Your task to perform on an android device: Open calendar and show me the second week of next month Image 0: 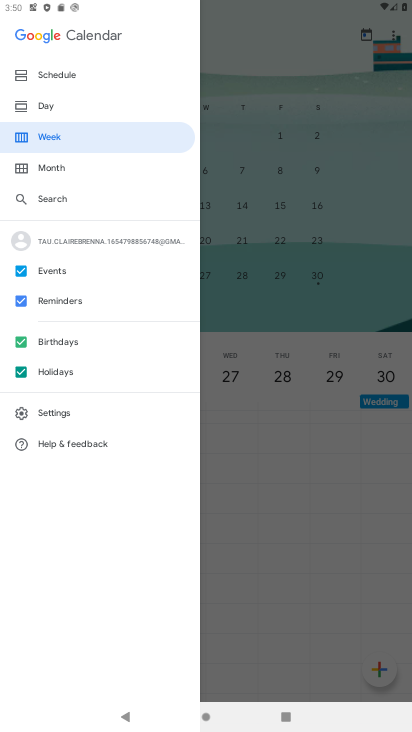
Step 0: press home button
Your task to perform on an android device: Open calendar and show me the second week of next month Image 1: 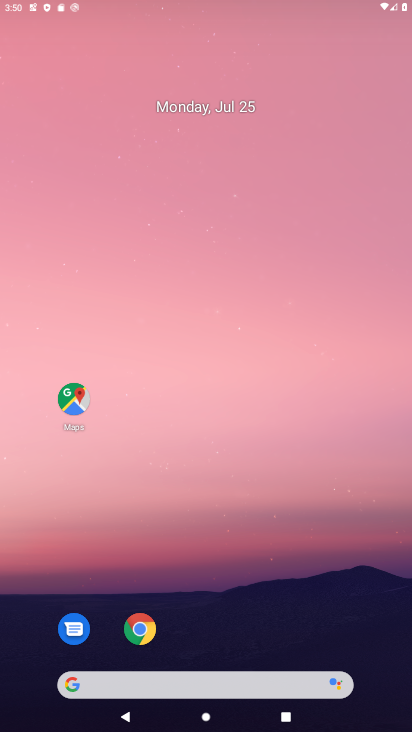
Step 1: drag from (212, 681) to (241, 2)
Your task to perform on an android device: Open calendar and show me the second week of next month Image 2: 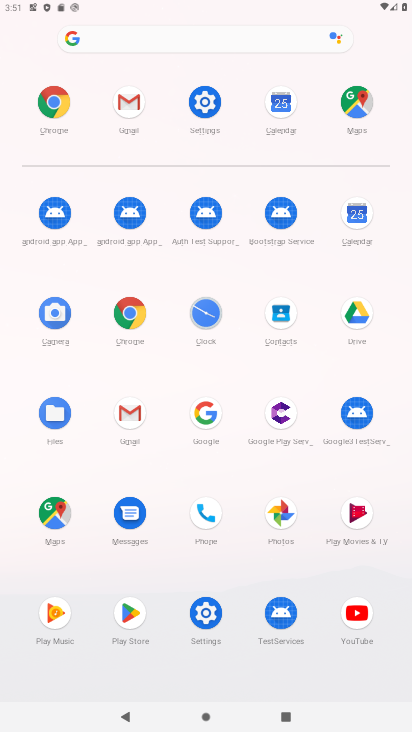
Step 2: click (358, 211)
Your task to perform on an android device: Open calendar and show me the second week of next month Image 3: 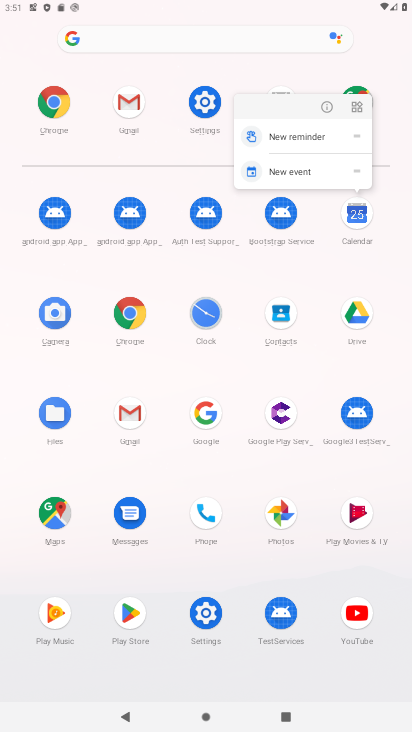
Step 3: click (359, 219)
Your task to perform on an android device: Open calendar and show me the second week of next month Image 4: 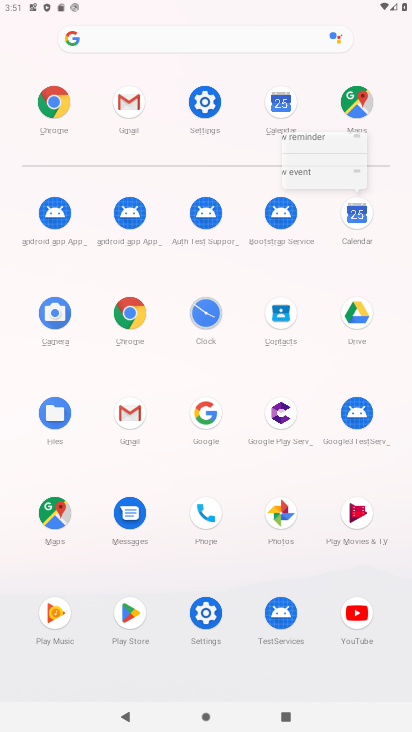
Step 4: click (356, 219)
Your task to perform on an android device: Open calendar and show me the second week of next month Image 5: 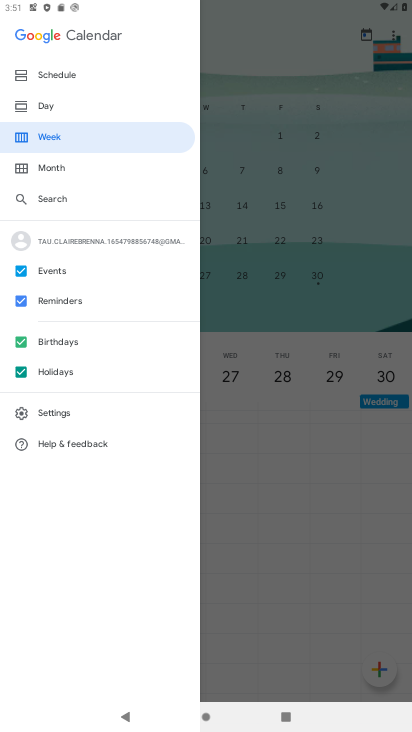
Step 5: click (280, 205)
Your task to perform on an android device: Open calendar and show me the second week of next month Image 6: 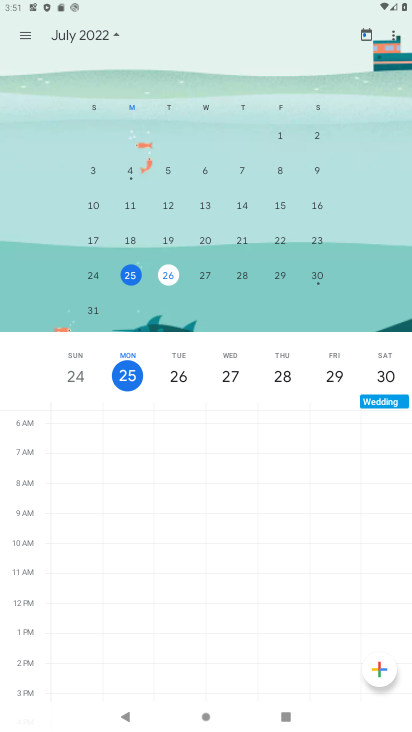
Step 6: drag from (300, 248) to (106, 127)
Your task to perform on an android device: Open calendar and show me the second week of next month Image 7: 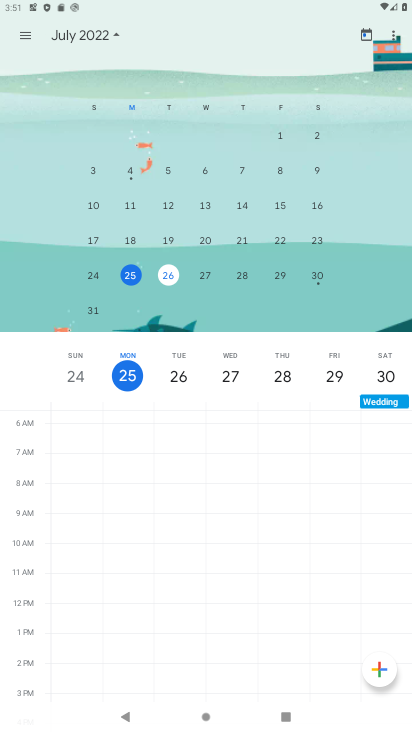
Step 7: drag from (283, 251) to (4, 228)
Your task to perform on an android device: Open calendar and show me the second week of next month Image 8: 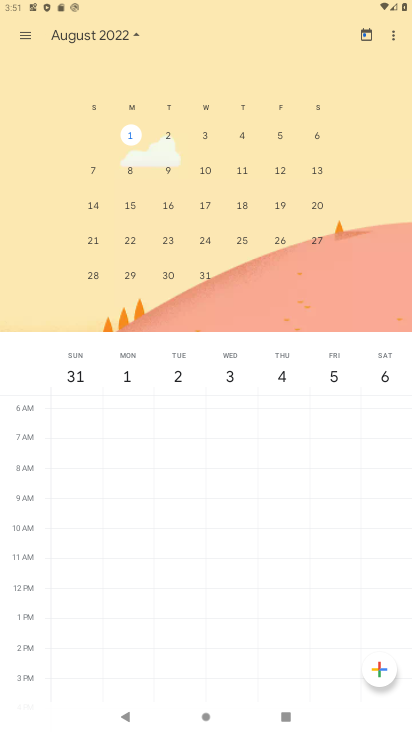
Step 8: click (205, 166)
Your task to perform on an android device: Open calendar and show me the second week of next month Image 9: 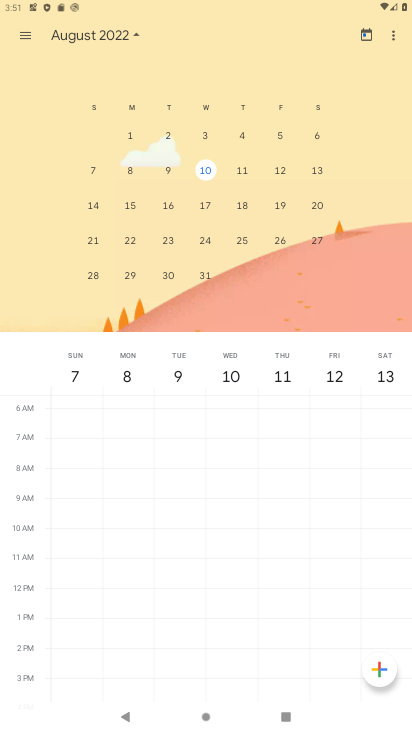
Step 9: task complete